Your task to perform on an android device: change notification settings in the gmail app Image 0: 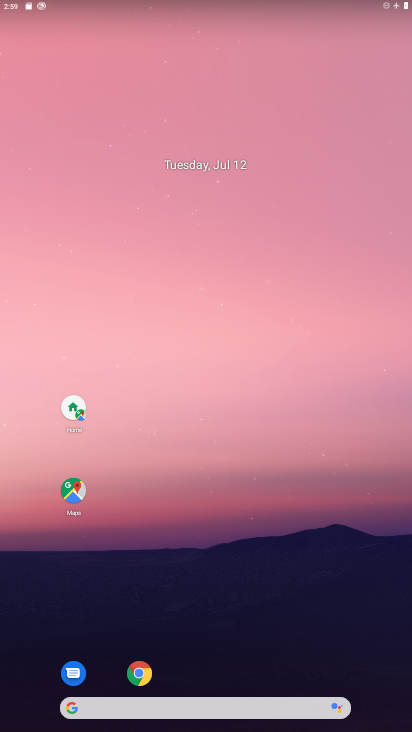
Step 0: drag from (269, 679) to (280, 309)
Your task to perform on an android device: change notification settings in the gmail app Image 1: 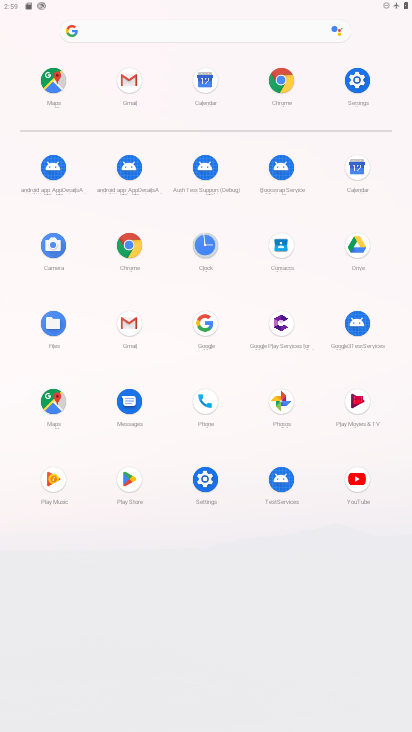
Step 1: click (131, 67)
Your task to perform on an android device: change notification settings in the gmail app Image 2: 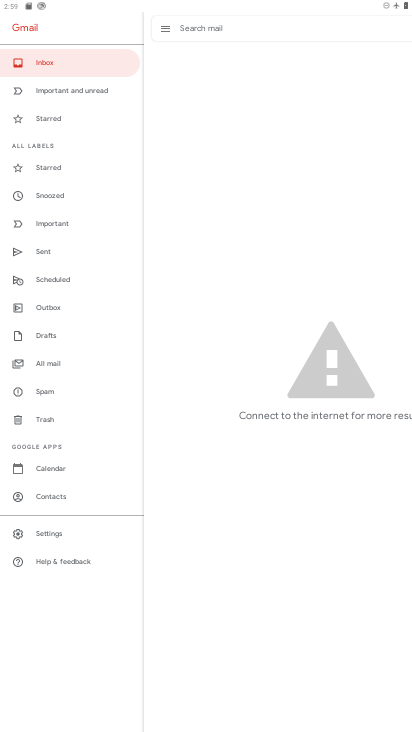
Step 2: click (59, 531)
Your task to perform on an android device: change notification settings in the gmail app Image 3: 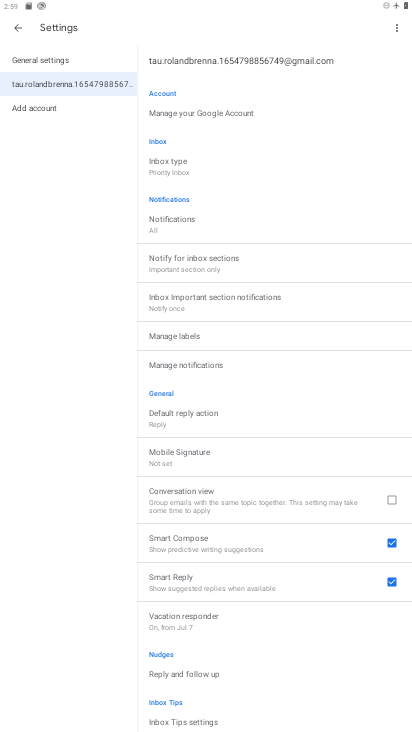
Step 3: click (224, 233)
Your task to perform on an android device: change notification settings in the gmail app Image 4: 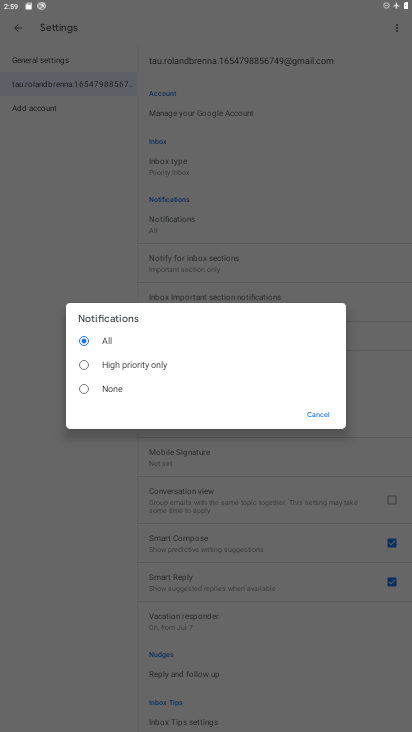
Step 4: click (109, 217)
Your task to perform on an android device: change notification settings in the gmail app Image 5: 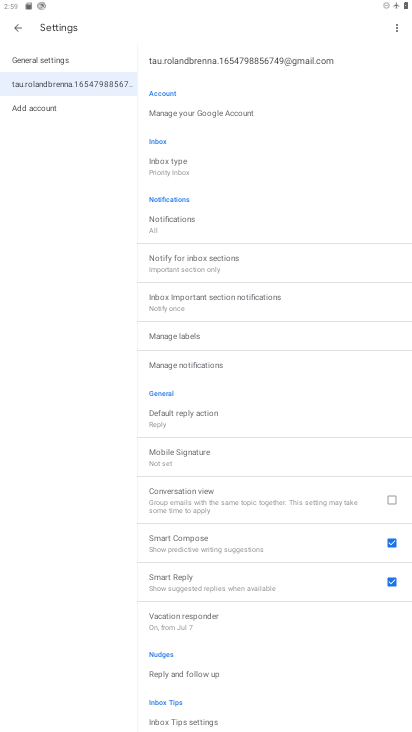
Step 5: click (50, 60)
Your task to perform on an android device: change notification settings in the gmail app Image 6: 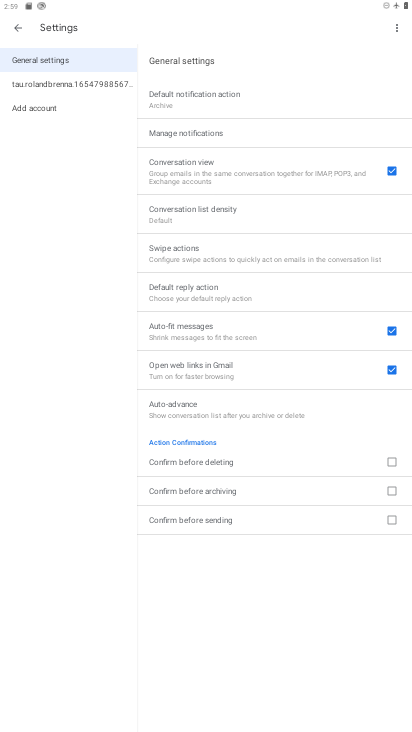
Step 6: click (39, 89)
Your task to perform on an android device: change notification settings in the gmail app Image 7: 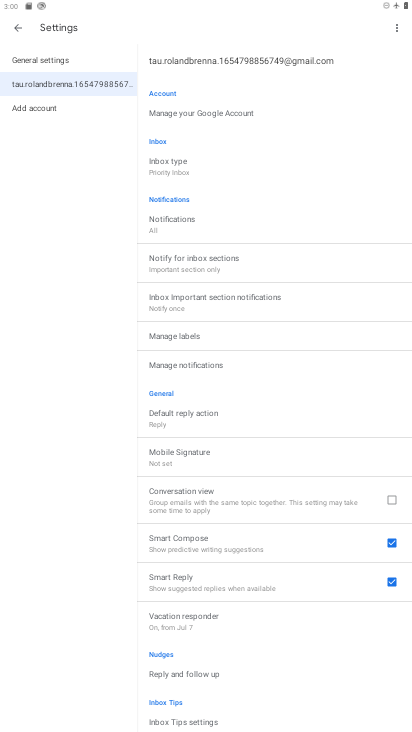
Step 7: click (187, 228)
Your task to perform on an android device: change notification settings in the gmail app Image 8: 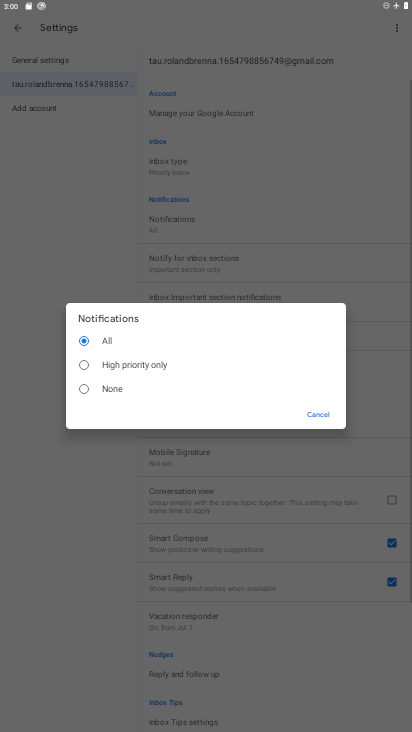
Step 8: click (149, 359)
Your task to perform on an android device: change notification settings in the gmail app Image 9: 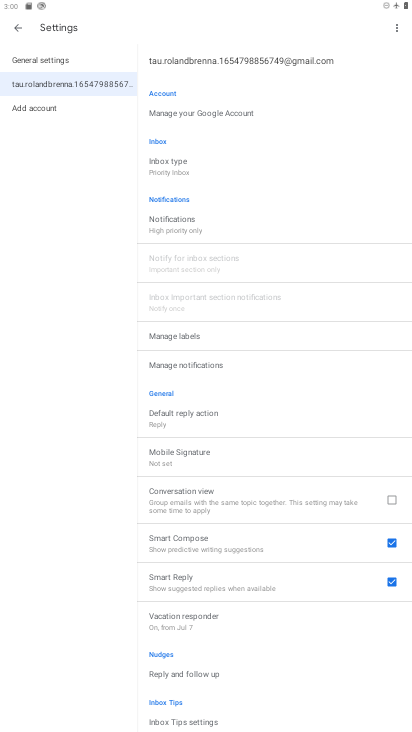
Step 9: task complete